Your task to perform on an android device: Search for usb-a to usb-b on newegg.com, select the first entry, and add it to the cart. Image 0: 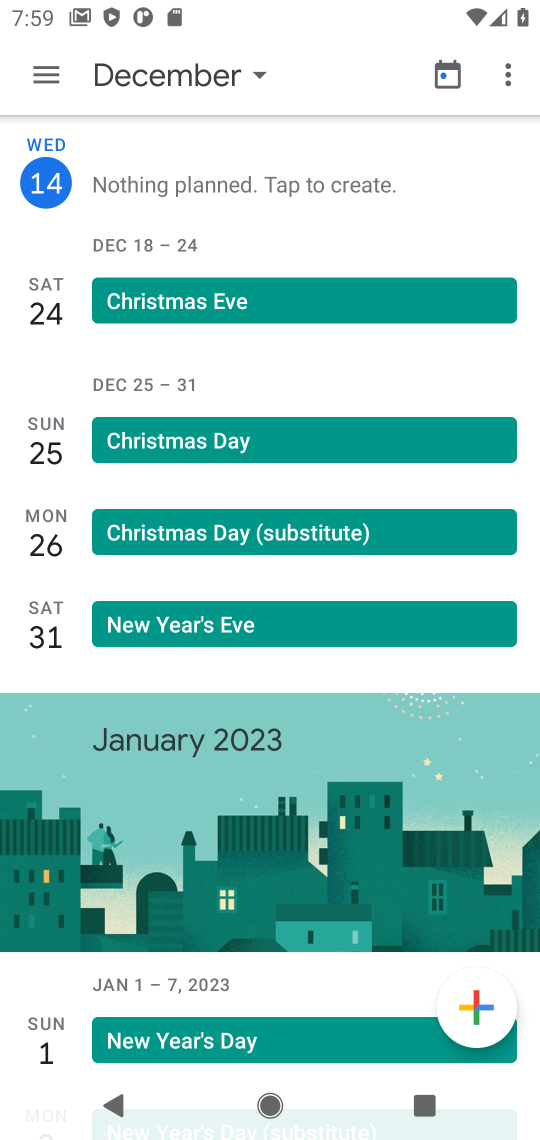
Step 0: press home button
Your task to perform on an android device: Search for usb-a to usb-b on newegg.com, select the first entry, and add it to the cart. Image 1: 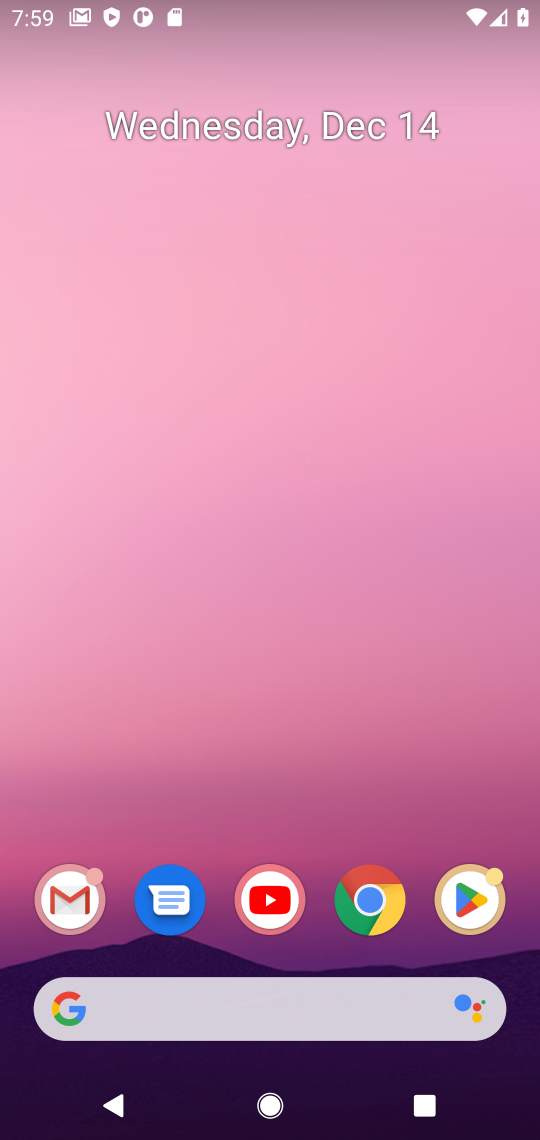
Step 1: click (364, 900)
Your task to perform on an android device: Search for usb-a to usb-b on newegg.com, select the first entry, and add it to the cart. Image 2: 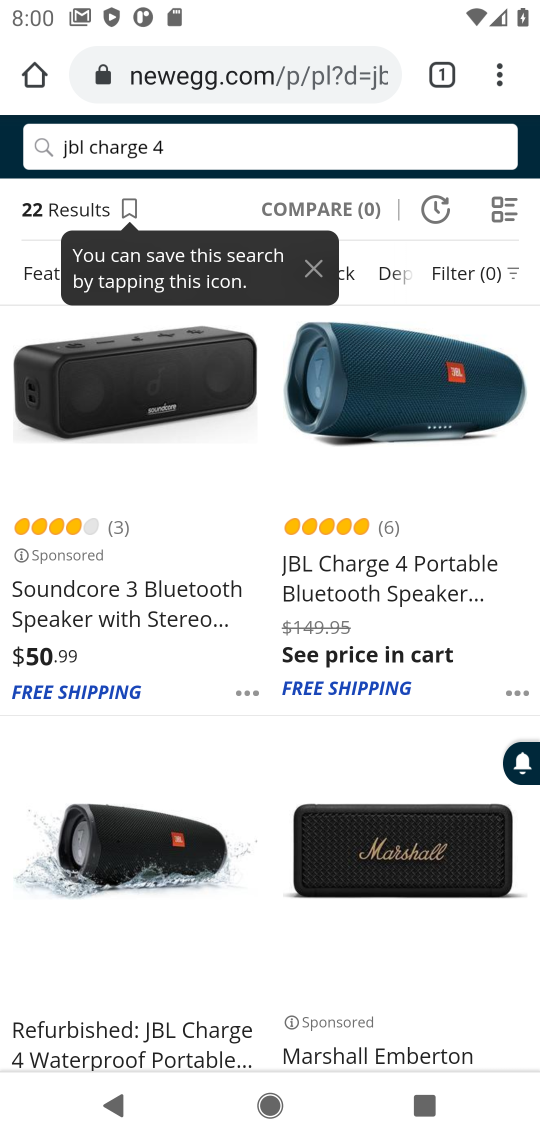
Step 2: click (145, 135)
Your task to perform on an android device: Search for usb-a to usb-b on newegg.com, select the first entry, and add it to the cart. Image 3: 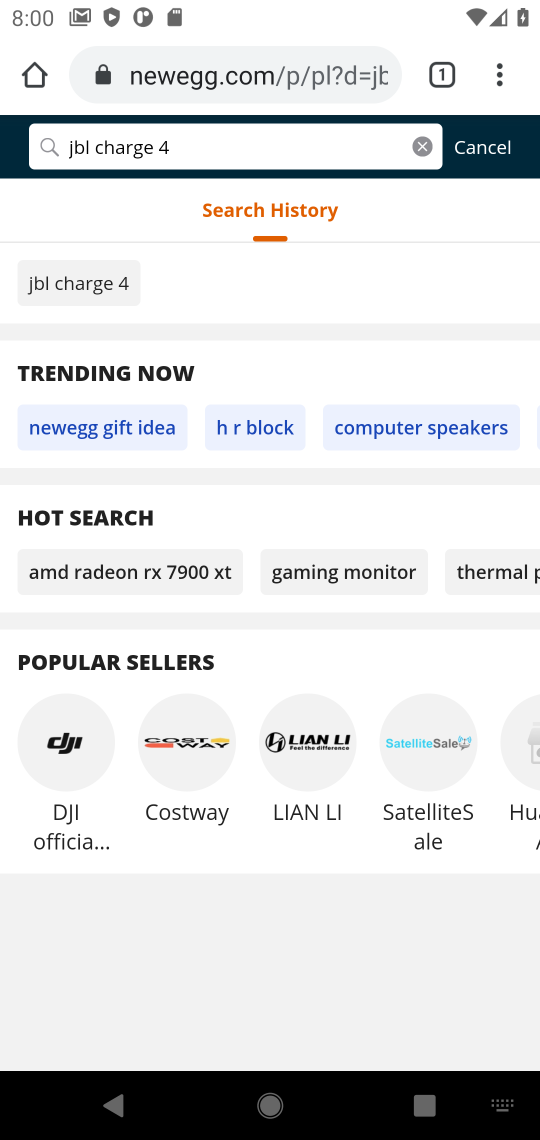
Step 3: click (419, 143)
Your task to perform on an android device: Search for usb-a to usb-b on newegg.com, select the first entry, and add it to the cart. Image 4: 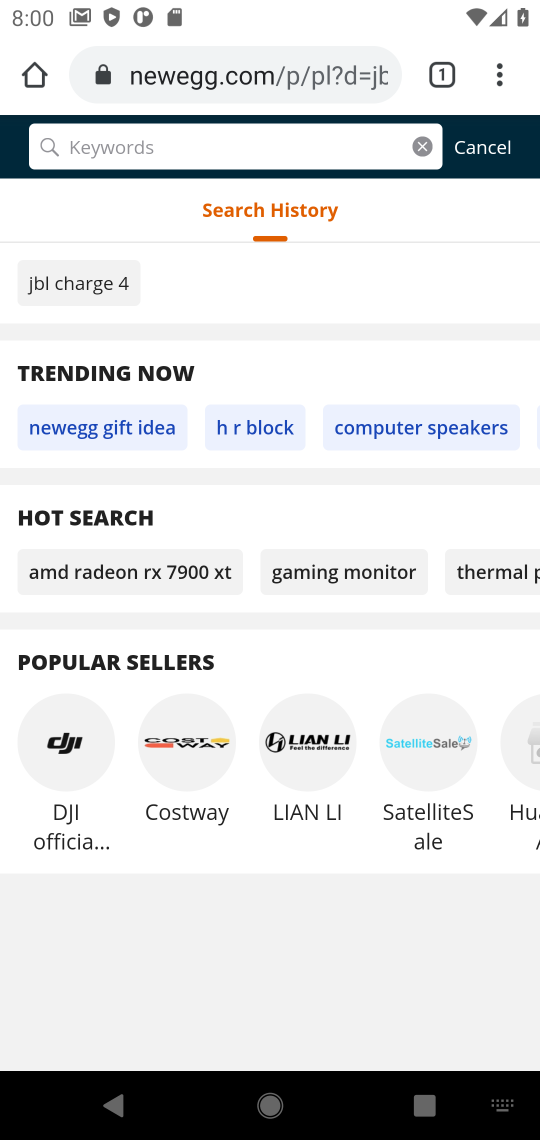
Step 4: type "usb-a to usb-b"
Your task to perform on an android device: Search for usb-a to usb-b on newegg.com, select the first entry, and add it to the cart. Image 5: 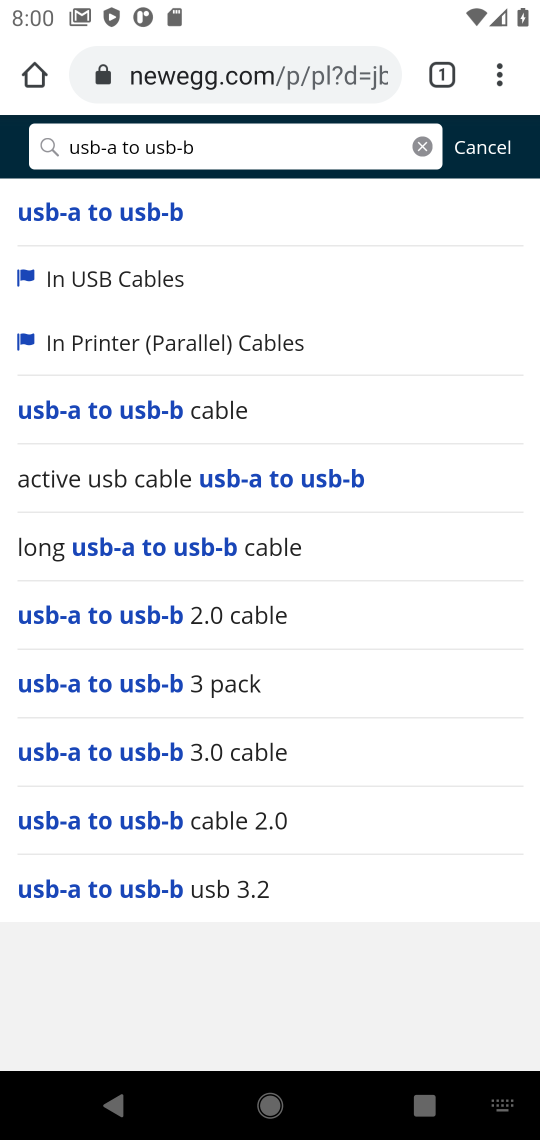
Step 5: click (96, 225)
Your task to perform on an android device: Search for usb-a to usb-b on newegg.com, select the first entry, and add it to the cart. Image 6: 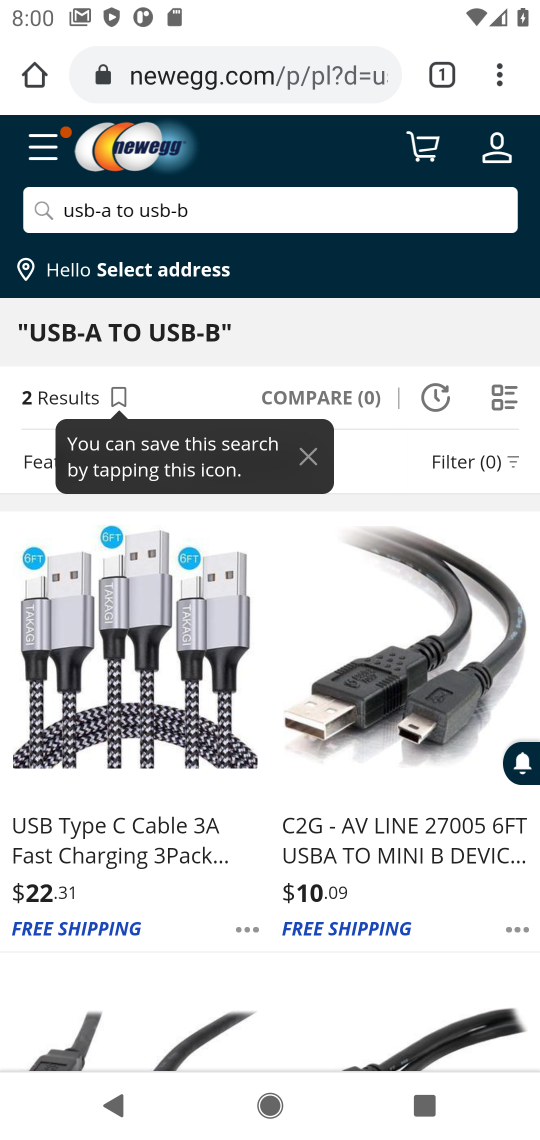
Step 6: click (91, 829)
Your task to perform on an android device: Search for usb-a to usb-b on newegg.com, select the first entry, and add it to the cart. Image 7: 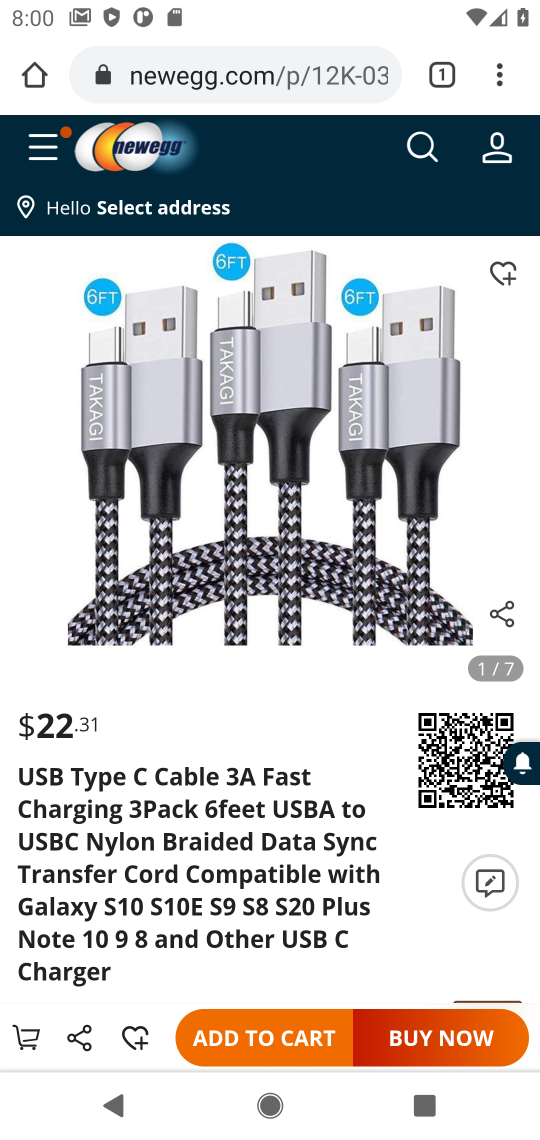
Step 7: task complete